Your task to perform on an android device: Turn off the flashlight Image 0: 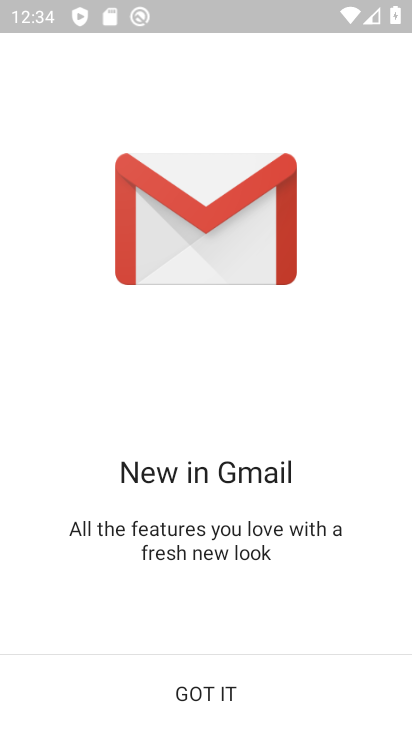
Step 0: press home button
Your task to perform on an android device: Turn off the flashlight Image 1: 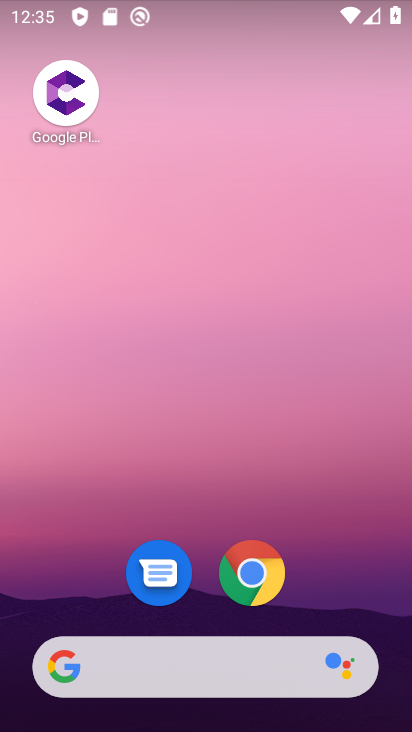
Step 1: task complete